Your task to perform on an android device: Open network settings Image 0: 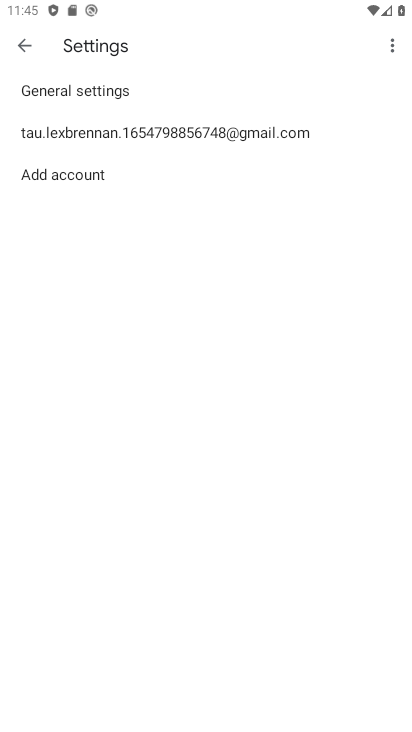
Step 0: press home button
Your task to perform on an android device: Open network settings Image 1: 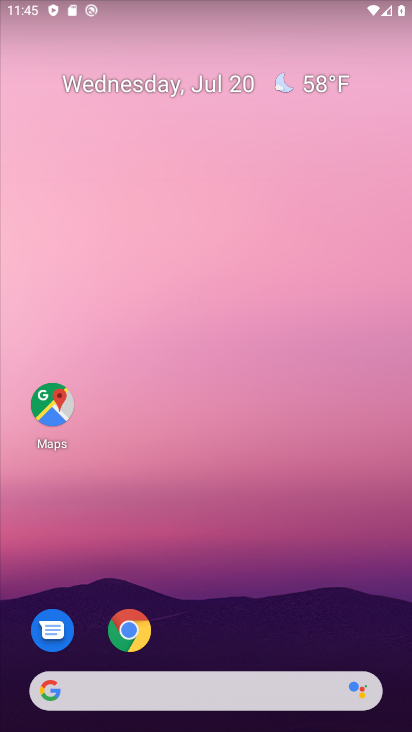
Step 1: drag from (207, 706) to (185, 85)
Your task to perform on an android device: Open network settings Image 2: 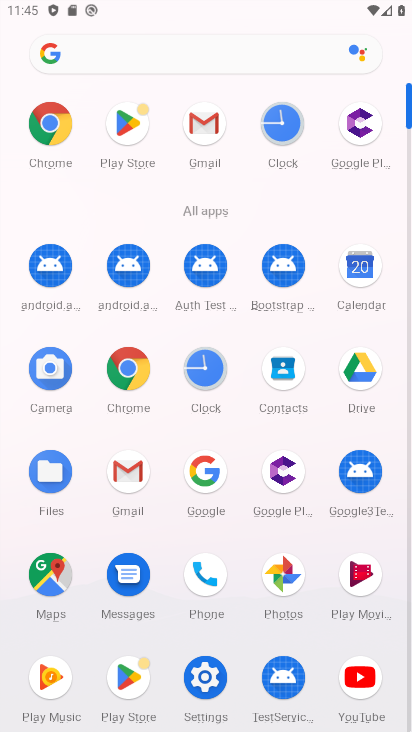
Step 2: click (204, 668)
Your task to perform on an android device: Open network settings Image 3: 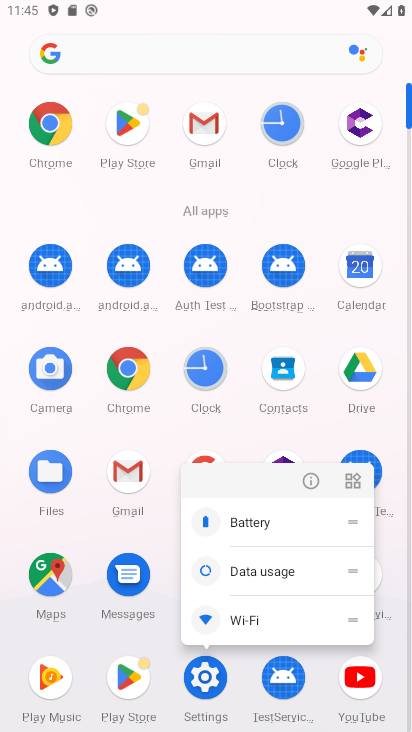
Step 3: click (204, 700)
Your task to perform on an android device: Open network settings Image 4: 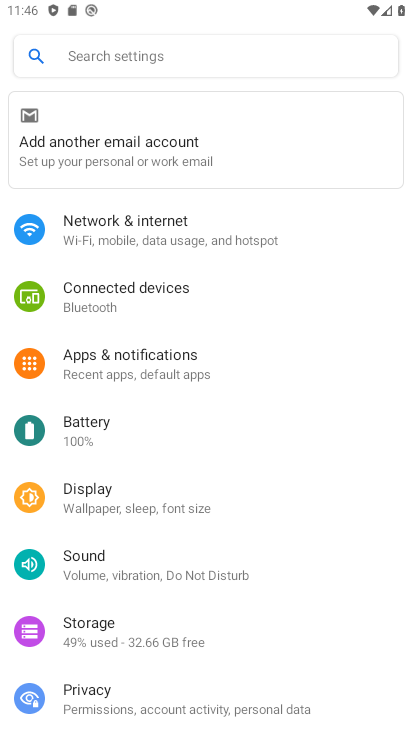
Step 4: click (133, 245)
Your task to perform on an android device: Open network settings Image 5: 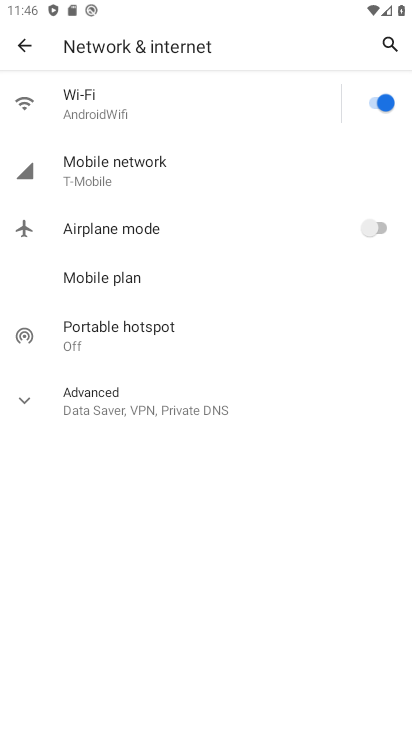
Step 5: task complete